Your task to perform on an android device: add a label to a message in the gmail app Image 0: 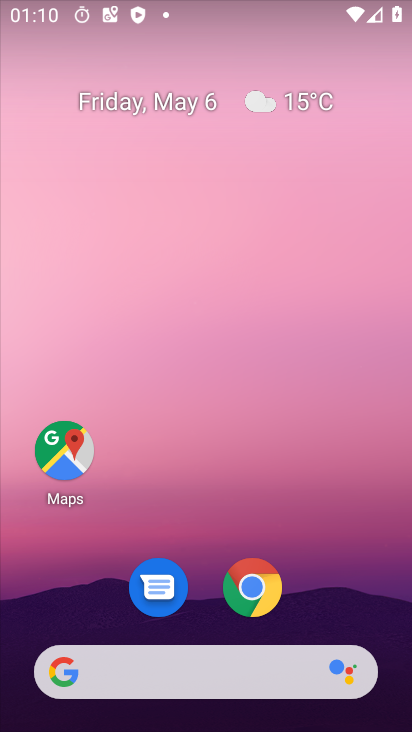
Step 0: drag from (394, 531) to (393, 266)
Your task to perform on an android device: add a label to a message in the gmail app Image 1: 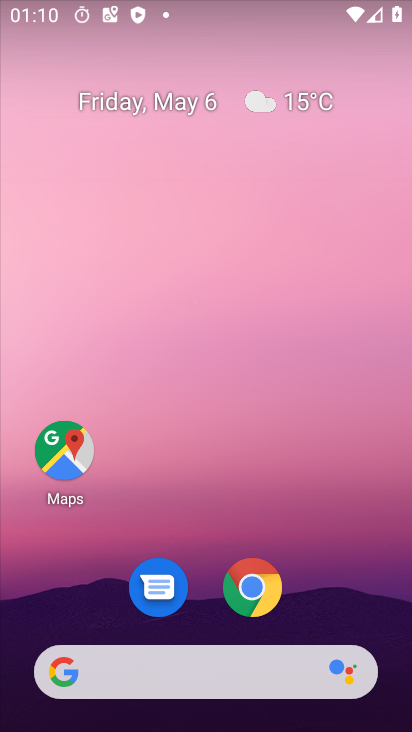
Step 1: drag from (403, 645) to (409, 224)
Your task to perform on an android device: add a label to a message in the gmail app Image 2: 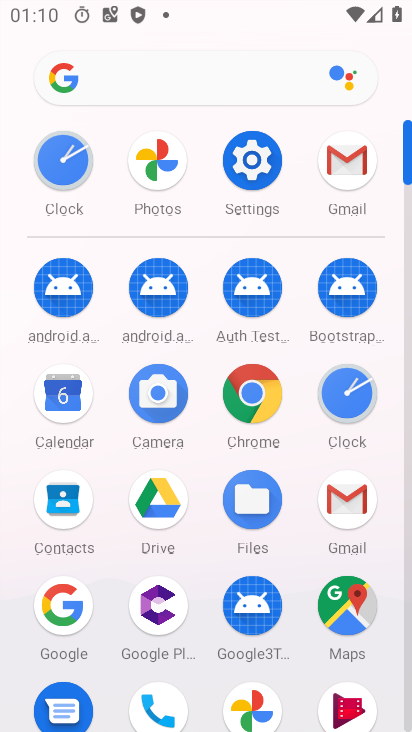
Step 2: click (345, 498)
Your task to perform on an android device: add a label to a message in the gmail app Image 3: 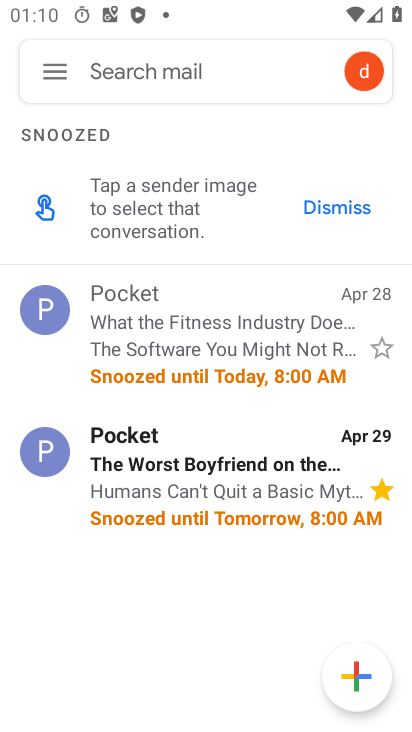
Step 3: click (52, 64)
Your task to perform on an android device: add a label to a message in the gmail app Image 4: 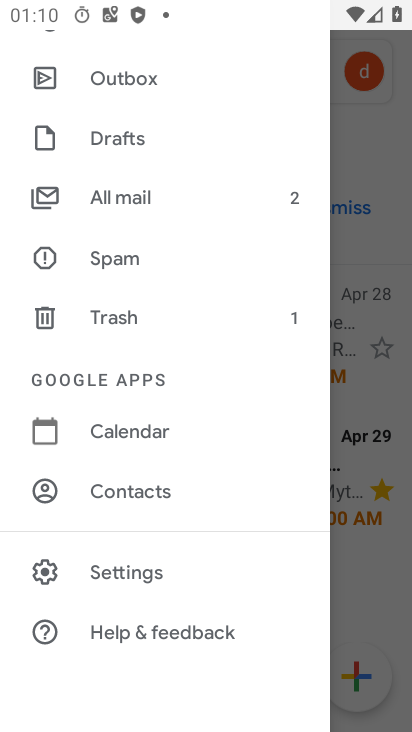
Step 4: drag from (191, 125) to (176, 474)
Your task to perform on an android device: add a label to a message in the gmail app Image 5: 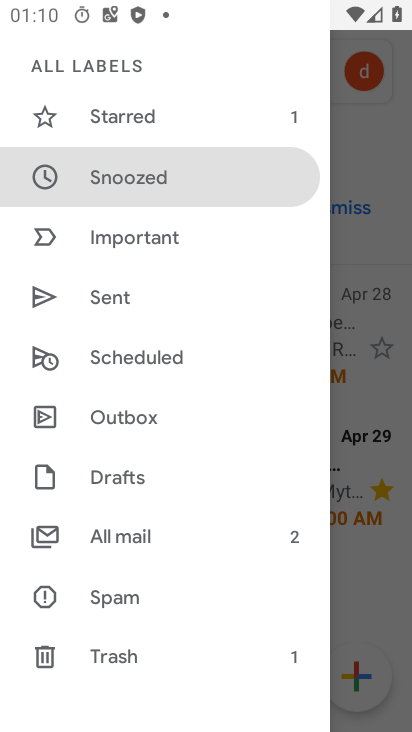
Step 5: drag from (206, 104) to (211, 455)
Your task to perform on an android device: add a label to a message in the gmail app Image 6: 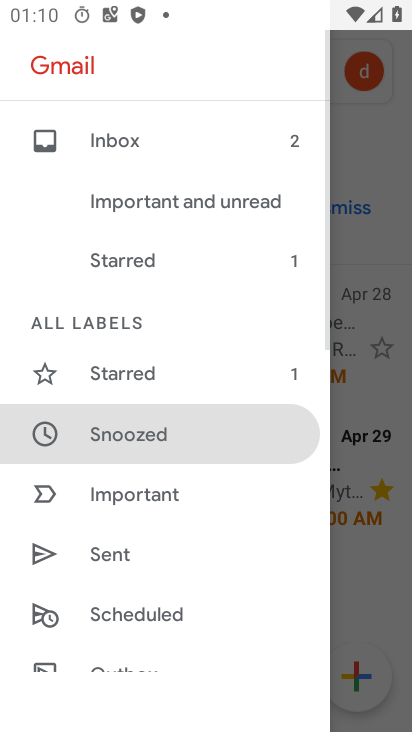
Step 6: click (123, 132)
Your task to perform on an android device: add a label to a message in the gmail app Image 7: 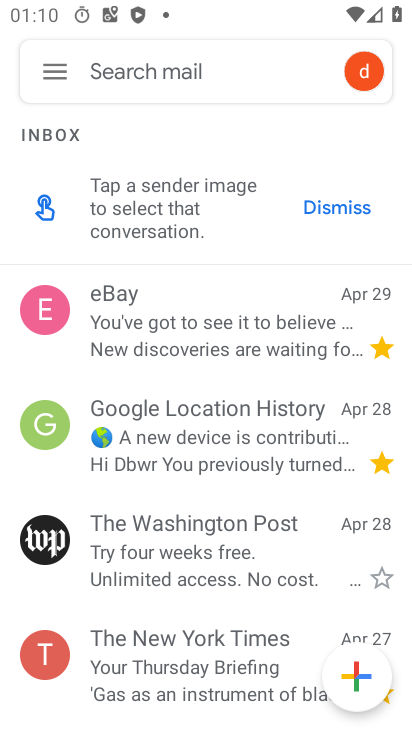
Step 7: click (172, 519)
Your task to perform on an android device: add a label to a message in the gmail app Image 8: 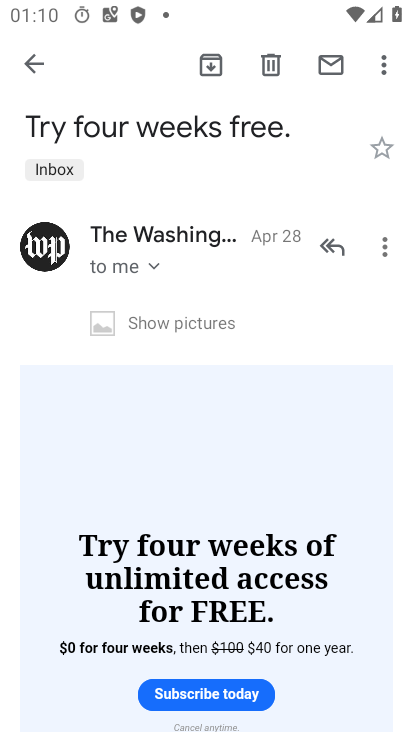
Step 8: click (388, 249)
Your task to perform on an android device: add a label to a message in the gmail app Image 9: 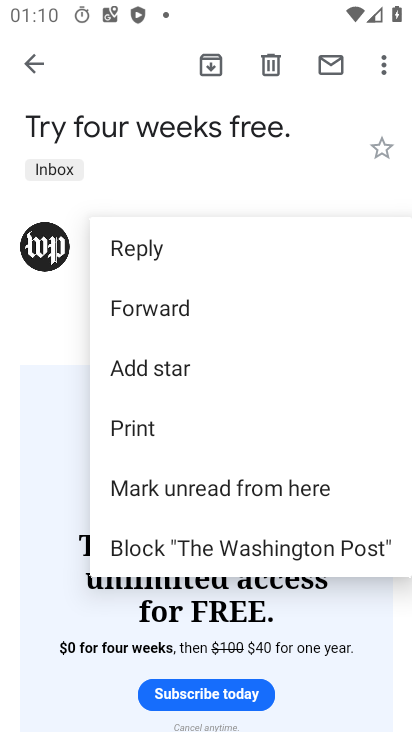
Step 9: click (135, 366)
Your task to perform on an android device: add a label to a message in the gmail app Image 10: 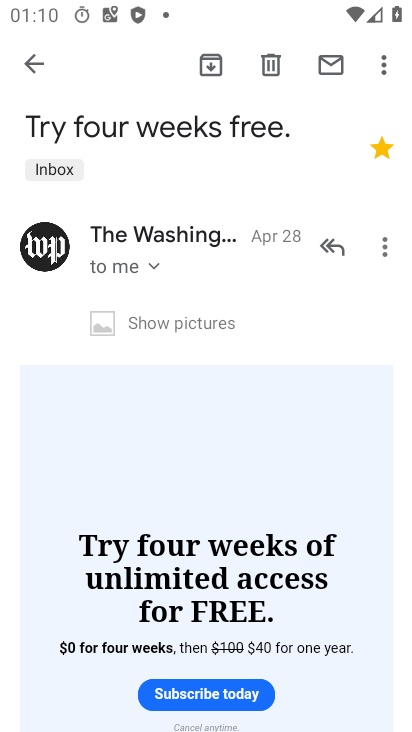
Step 10: task complete